Your task to perform on an android device: Set the phone to "Do not disturb". Image 0: 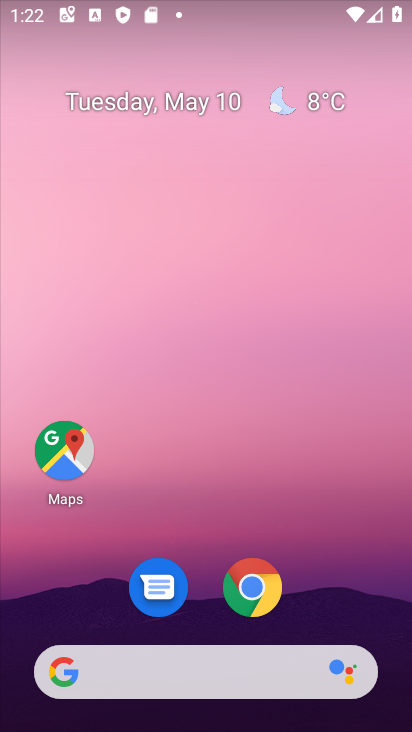
Step 0: drag from (378, 474) to (360, 351)
Your task to perform on an android device: Set the phone to "Do not disturb". Image 1: 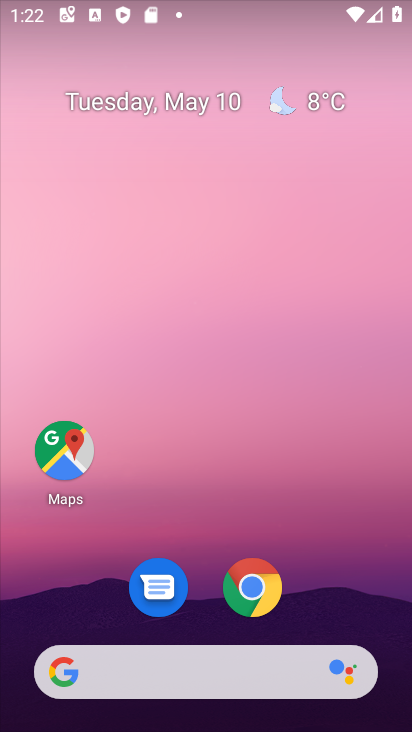
Step 1: drag from (400, 688) to (404, 277)
Your task to perform on an android device: Set the phone to "Do not disturb". Image 2: 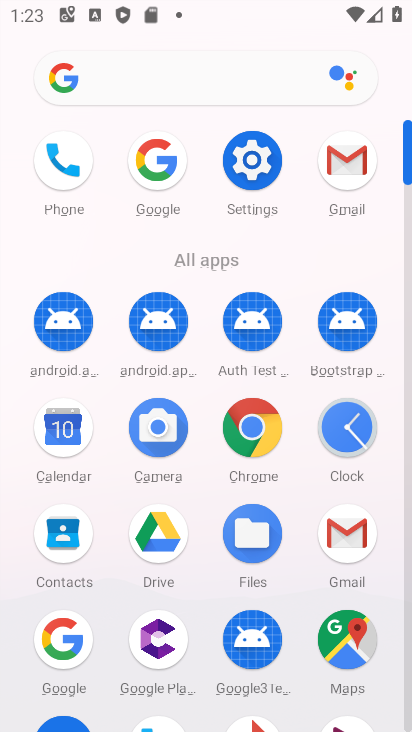
Step 2: click (238, 160)
Your task to perform on an android device: Set the phone to "Do not disturb". Image 3: 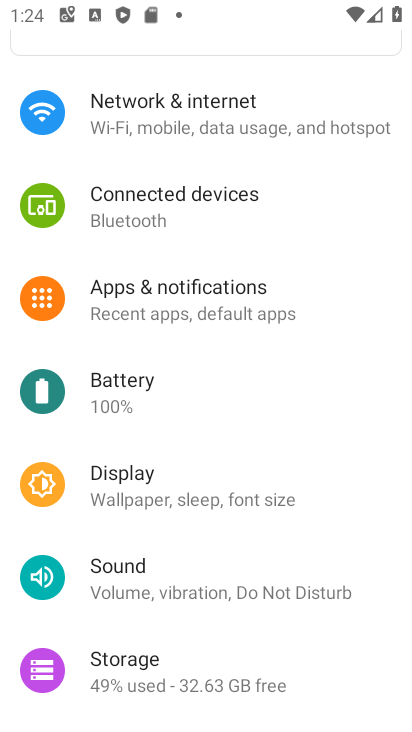
Step 3: click (196, 593)
Your task to perform on an android device: Set the phone to "Do not disturb". Image 4: 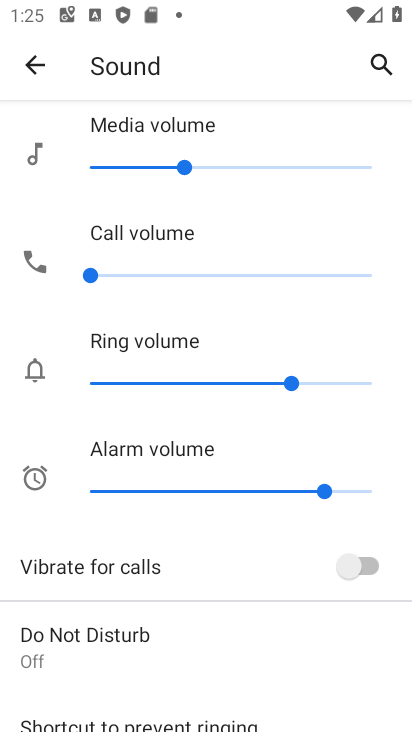
Step 4: click (51, 643)
Your task to perform on an android device: Set the phone to "Do not disturb". Image 5: 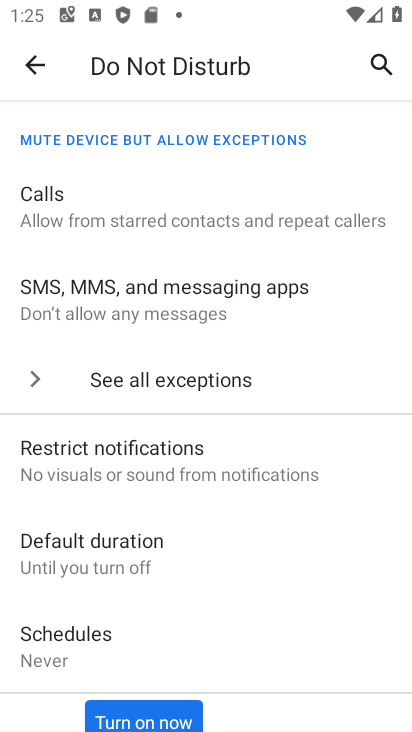
Step 5: click (132, 717)
Your task to perform on an android device: Set the phone to "Do not disturb". Image 6: 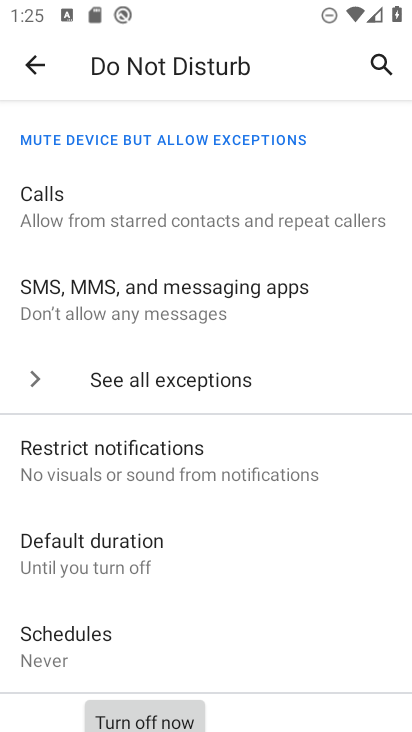
Step 6: task complete